Your task to perform on an android device: What is the news today? Image 0: 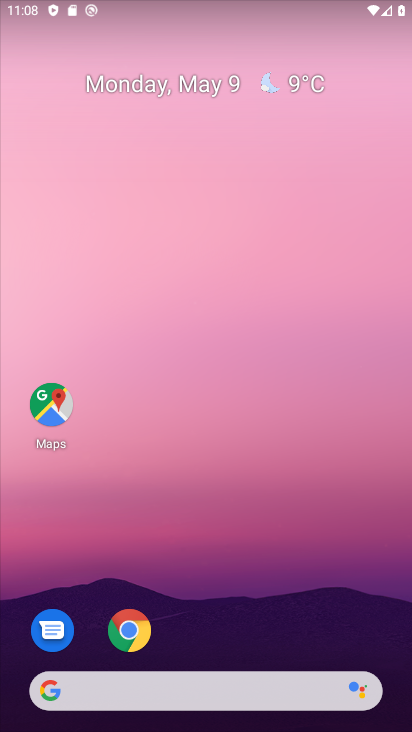
Step 0: click (129, 628)
Your task to perform on an android device: What is the news today? Image 1: 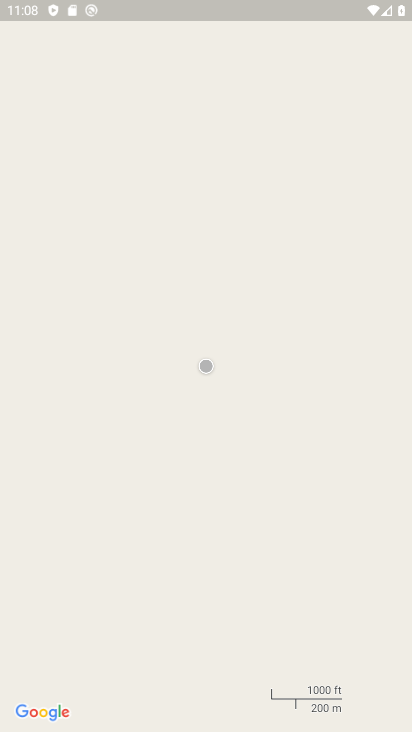
Step 1: click (129, 628)
Your task to perform on an android device: What is the news today? Image 2: 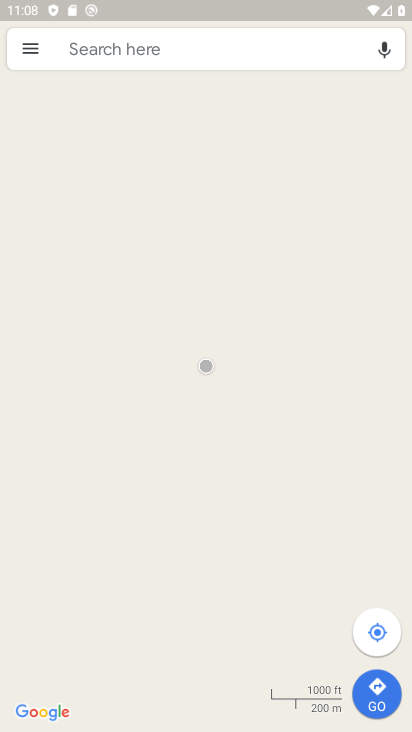
Step 2: task complete